Your task to perform on an android device: toggle notification dots Image 0: 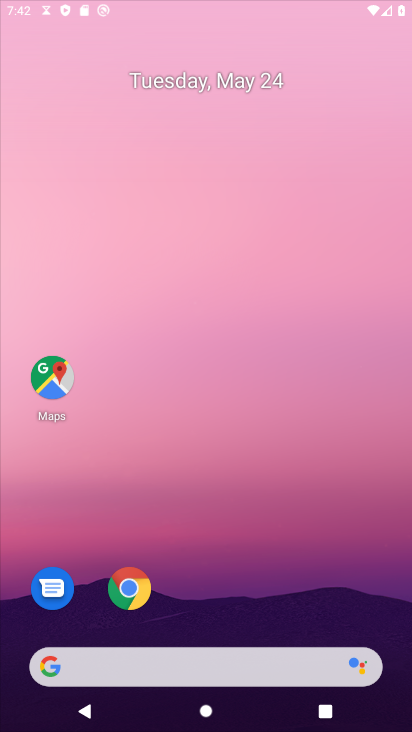
Step 0: drag from (319, 0) to (190, 69)
Your task to perform on an android device: toggle notification dots Image 1: 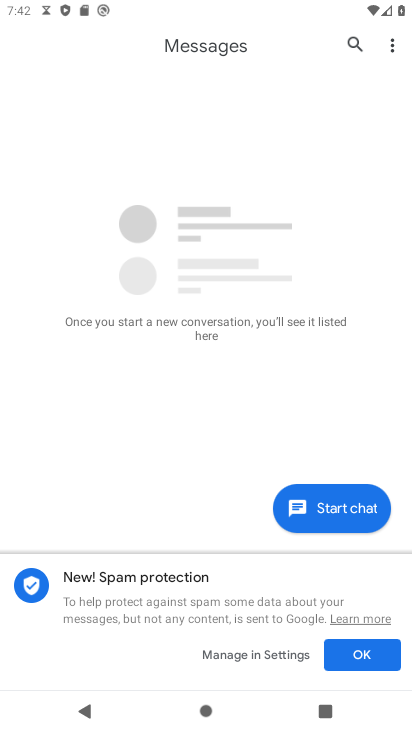
Step 1: press home button
Your task to perform on an android device: toggle notification dots Image 2: 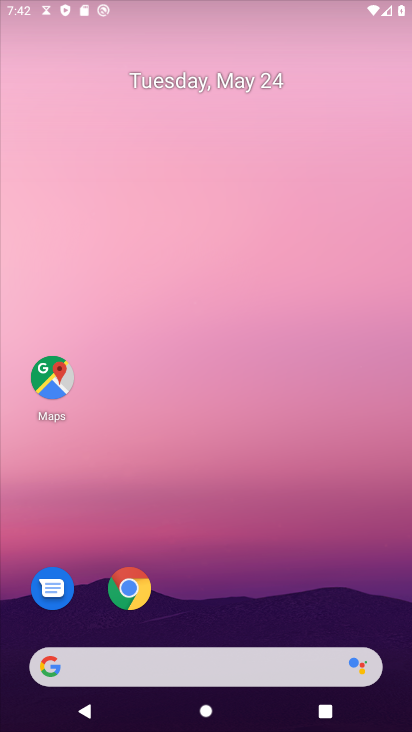
Step 2: drag from (267, 609) to (270, 7)
Your task to perform on an android device: toggle notification dots Image 3: 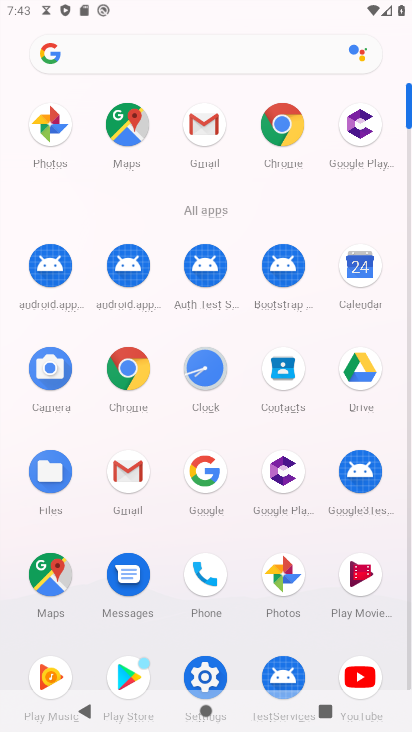
Step 3: click (208, 670)
Your task to perform on an android device: toggle notification dots Image 4: 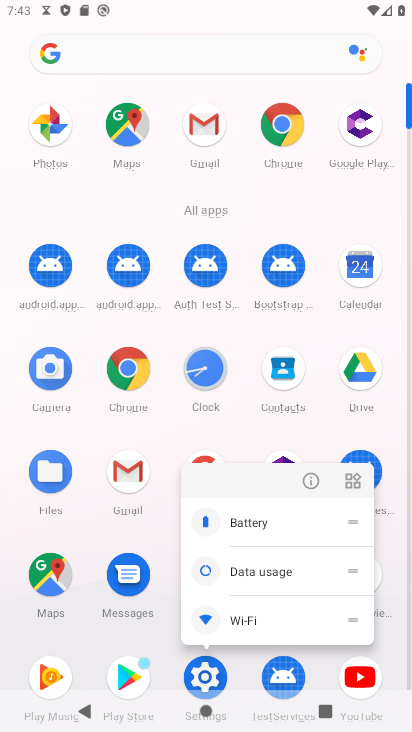
Step 4: click (310, 481)
Your task to perform on an android device: toggle notification dots Image 5: 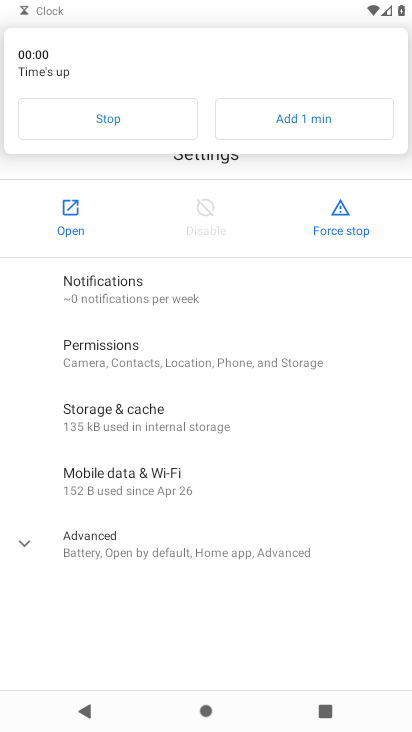
Step 5: click (78, 197)
Your task to perform on an android device: toggle notification dots Image 6: 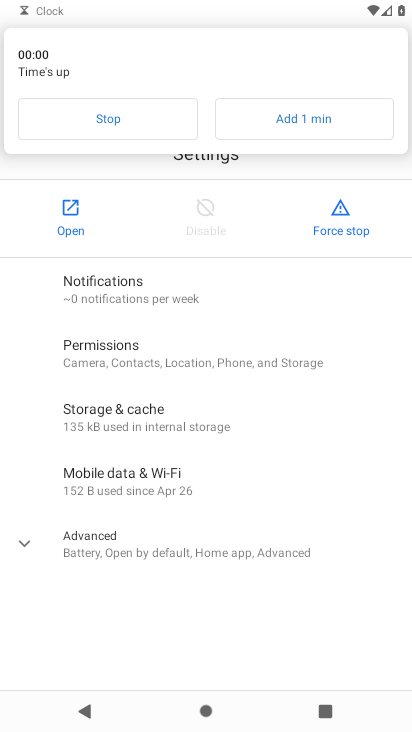
Step 6: click (78, 197)
Your task to perform on an android device: toggle notification dots Image 7: 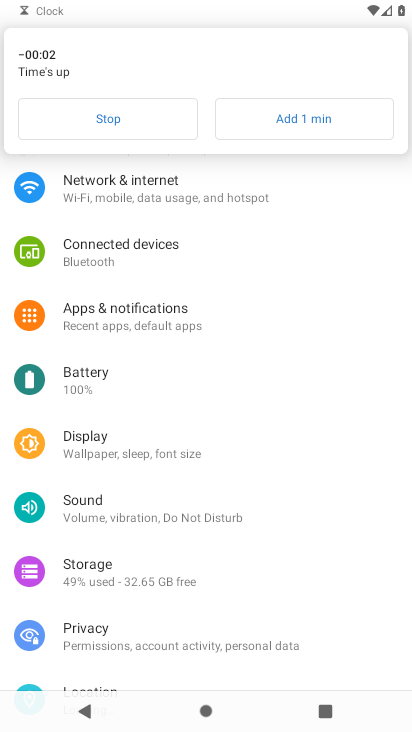
Step 7: click (154, 107)
Your task to perform on an android device: toggle notification dots Image 8: 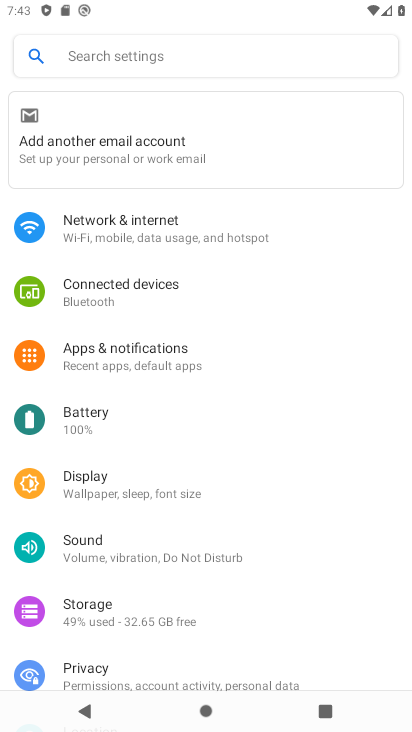
Step 8: drag from (235, 462) to (340, 125)
Your task to perform on an android device: toggle notification dots Image 9: 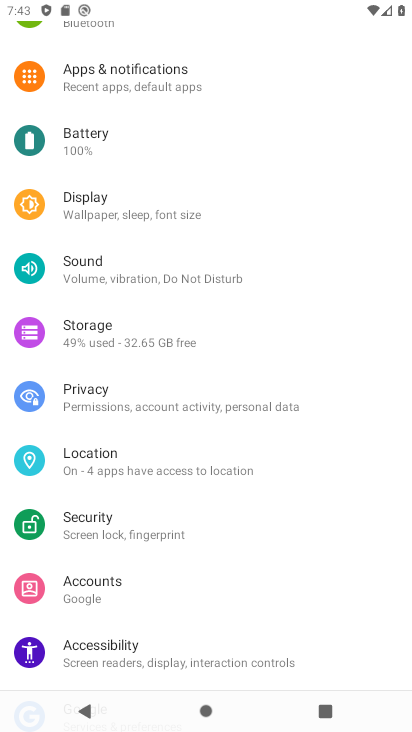
Step 9: click (173, 72)
Your task to perform on an android device: toggle notification dots Image 10: 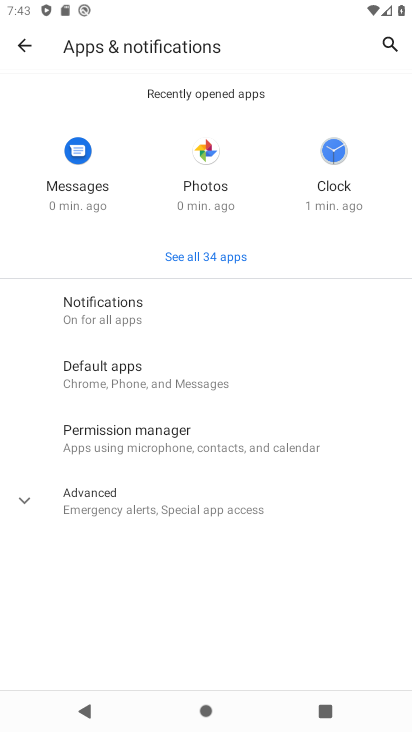
Step 10: click (135, 307)
Your task to perform on an android device: toggle notification dots Image 11: 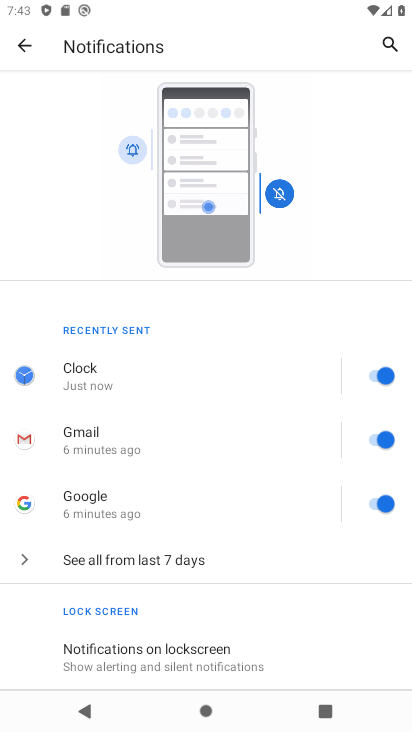
Step 11: drag from (287, 589) to (408, 89)
Your task to perform on an android device: toggle notification dots Image 12: 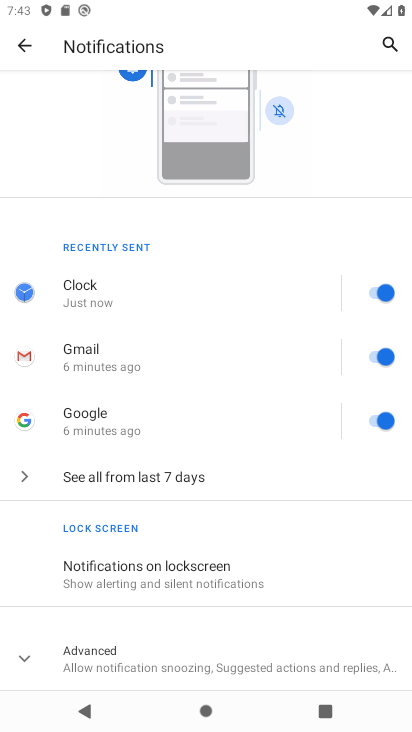
Step 12: click (181, 661)
Your task to perform on an android device: toggle notification dots Image 13: 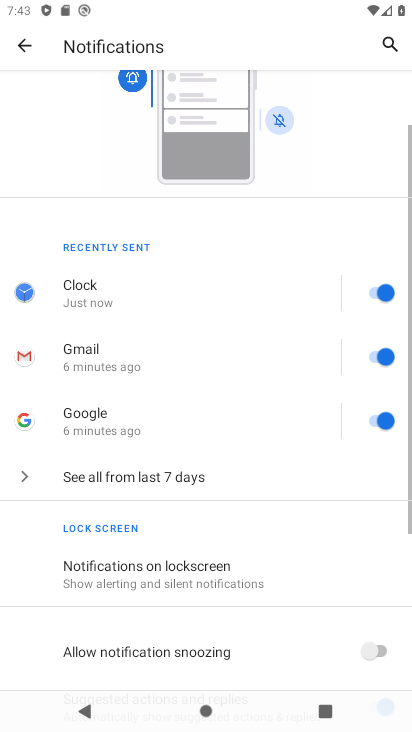
Step 13: drag from (181, 659) to (284, 80)
Your task to perform on an android device: toggle notification dots Image 14: 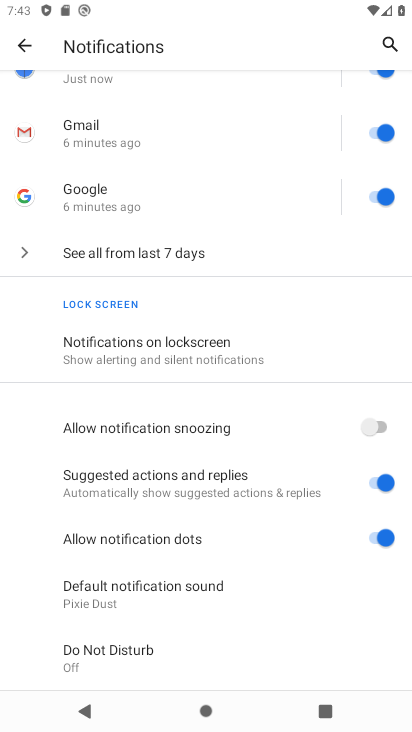
Step 14: click (364, 533)
Your task to perform on an android device: toggle notification dots Image 15: 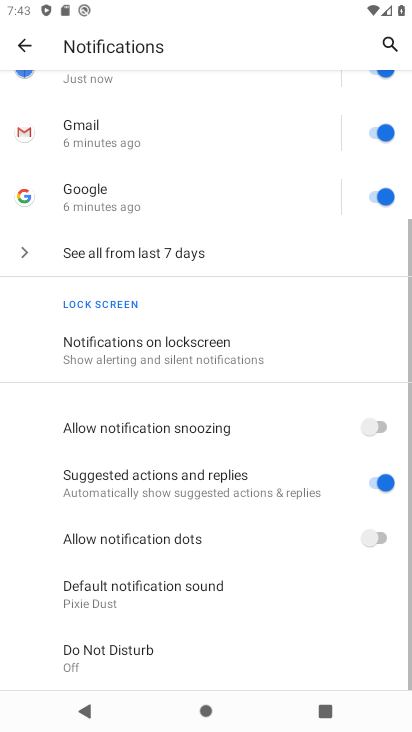
Step 15: task complete